Your task to perform on an android device: set the stopwatch Image 0: 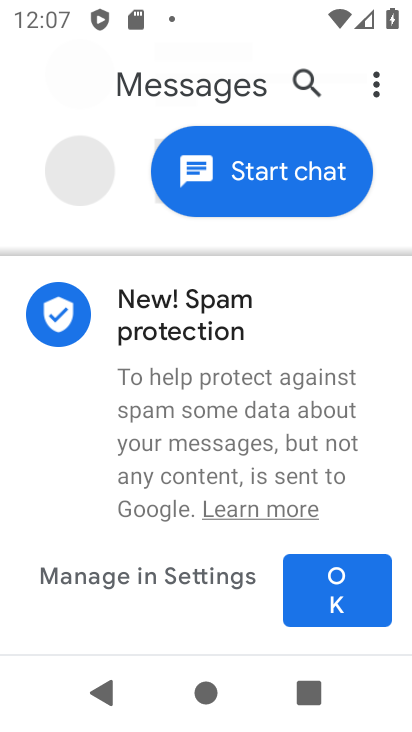
Step 0: press home button
Your task to perform on an android device: set the stopwatch Image 1: 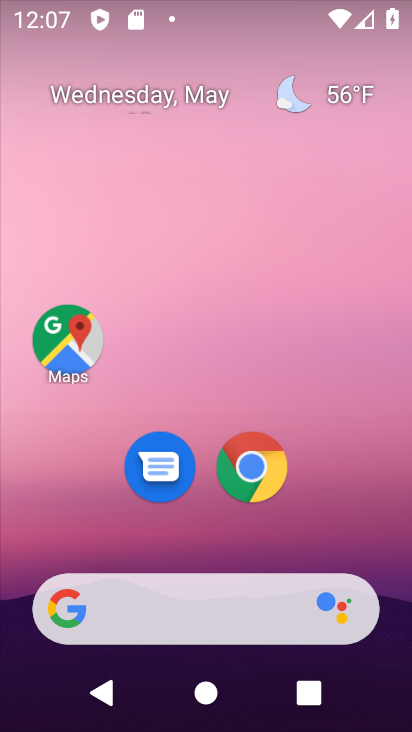
Step 1: drag from (206, 539) to (220, 2)
Your task to perform on an android device: set the stopwatch Image 2: 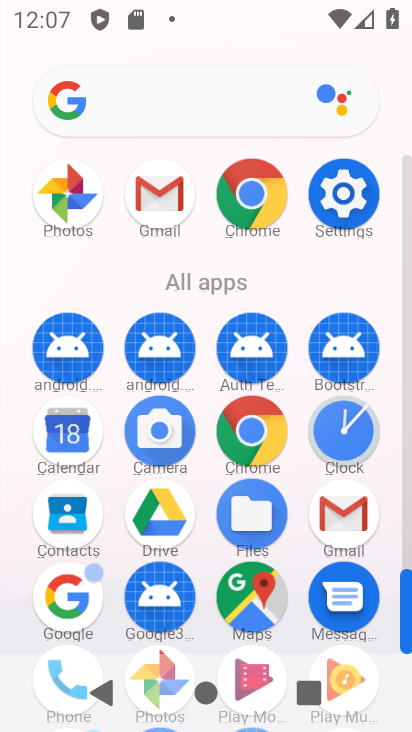
Step 2: click (349, 433)
Your task to perform on an android device: set the stopwatch Image 3: 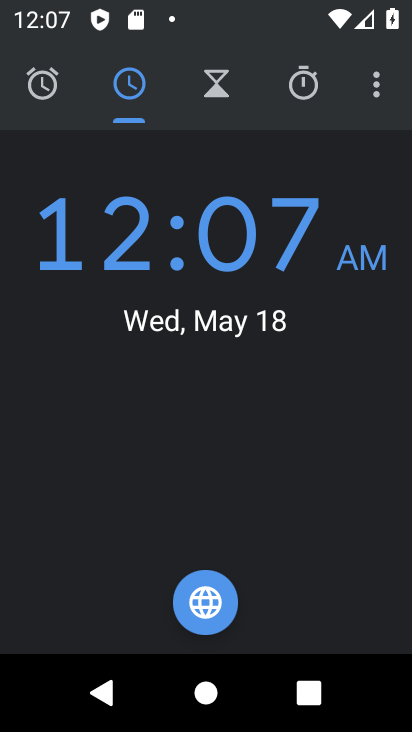
Step 3: click (373, 89)
Your task to perform on an android device: set the stopwatch Image 4: 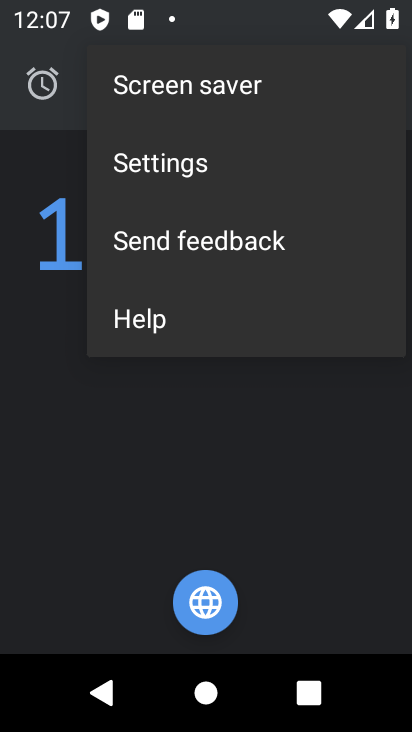
Step 4: click (47, 145)
Your task to perform on an android device: set the stopwatch Image 5: 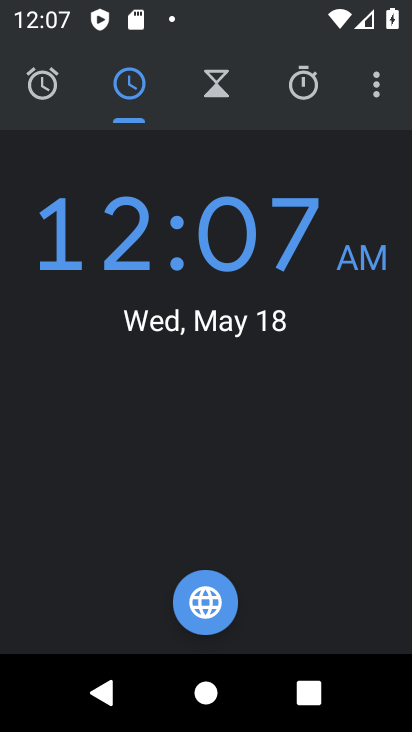
Step 5: click (315, 91)
Your task to perform on an android device: set the stopwatch Image 6: 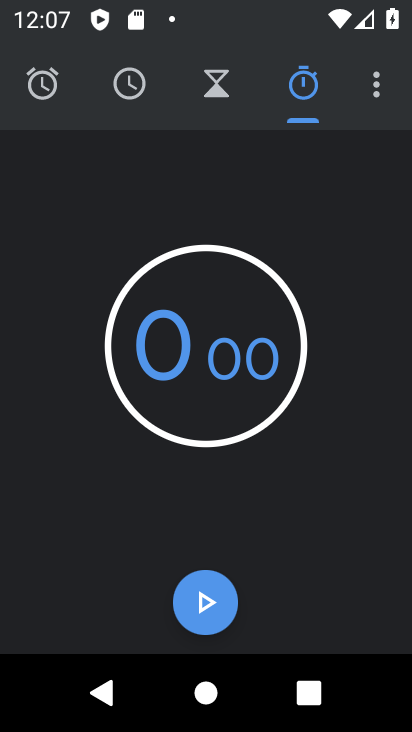
Step 6: click (206, 612)
Your task to perform on an android device: set the stopwatch Image 7: 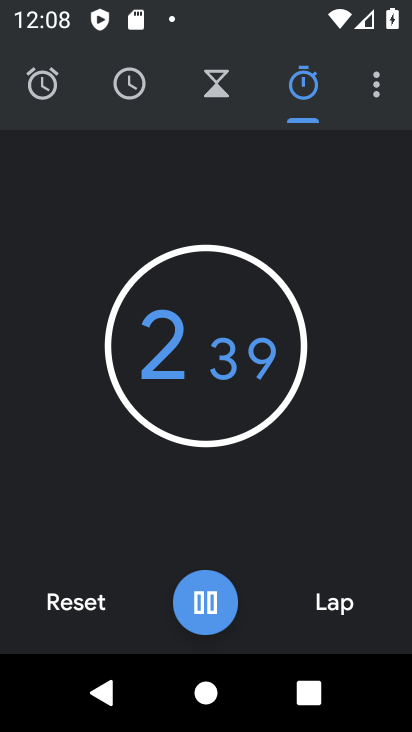
Step 7: task complete